Your task to perform on an android device: change notifications settings Image 0: 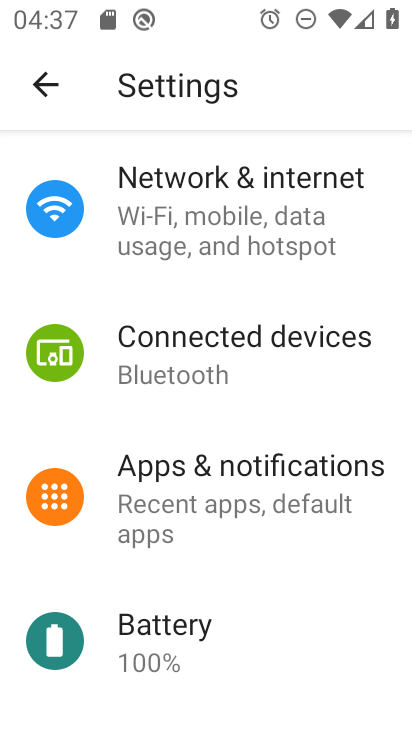
Step 0: click (220, 488)
Your task to perform on an android device: change notifications settings Image 1: 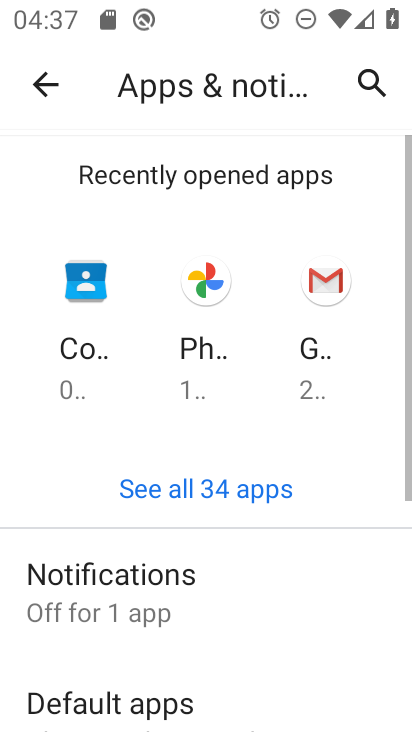
Step 1: click (162, 638)
Your task to perform on an android device: change notifications settings Image 2: 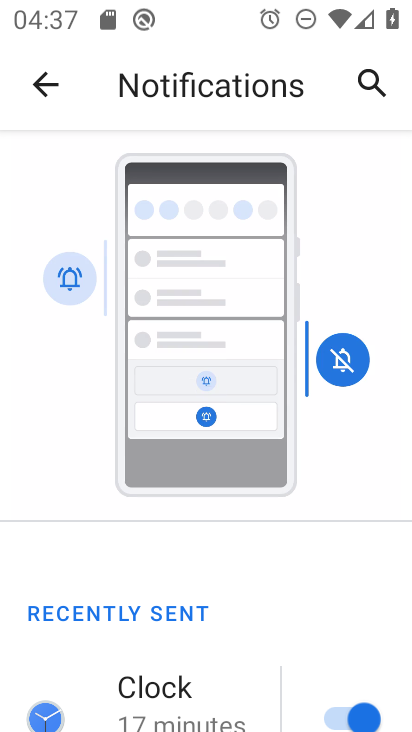
Step 2: drag from (302, 713) to (281, 493)
Your task to perform on an android device: change notifications settings Image 3: 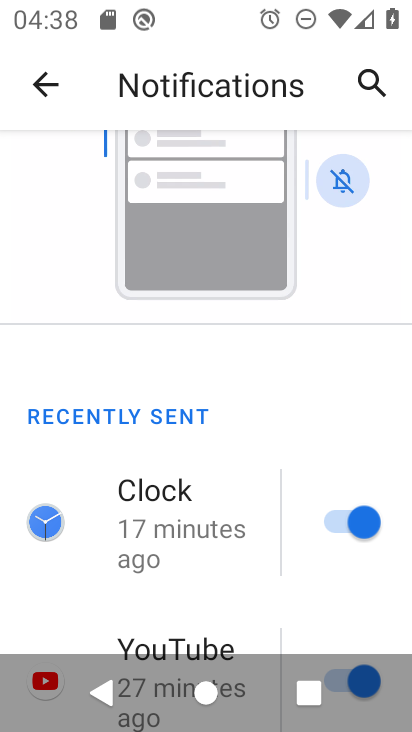
Step 3: drag from (241, 565) to (282, 98)
Your task to perform on an android device: change notifications settings Image 4: 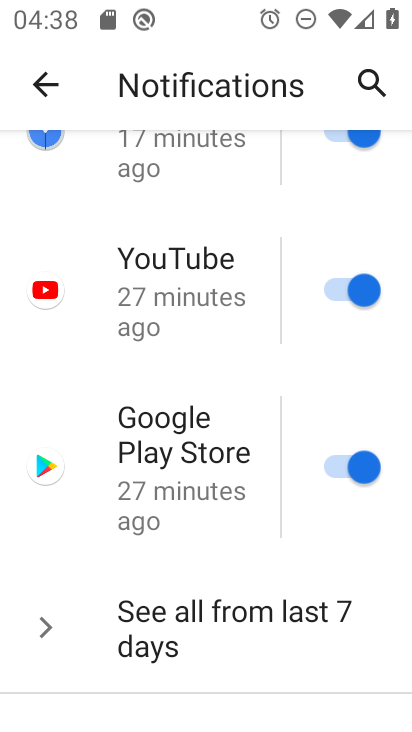
Step 4: click (245, 631)
Your task to perform on an android device: change notifications settings Image 5: 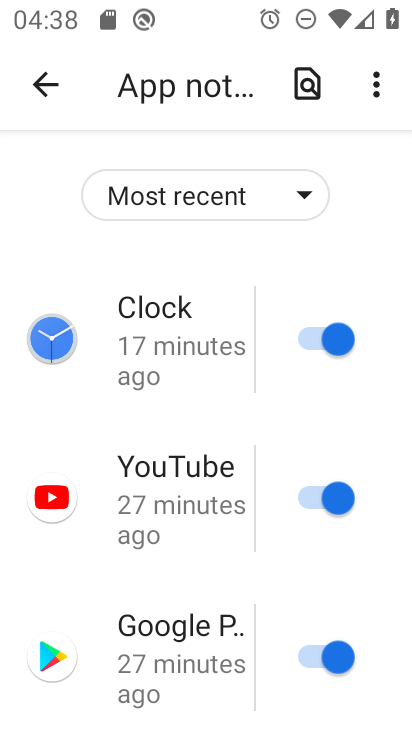
Step 5: click (339, 333)
Your task to perform on an android device: change notifications settings Image 6: 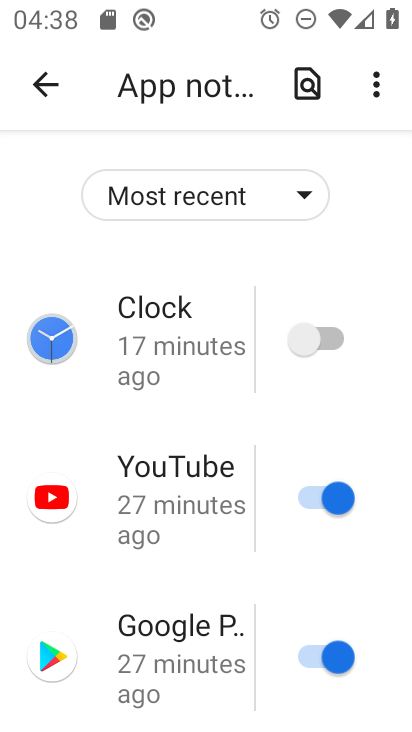
Step 6: click (317, 486)
Your task to perform on an android device: change notifications settings Image 7: 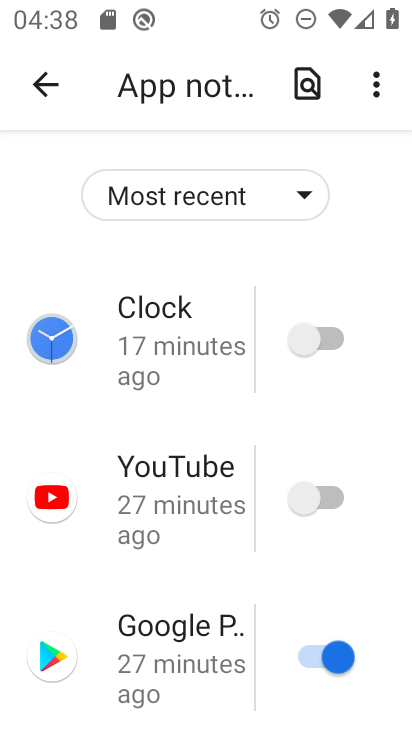
Step 7: click (301, 643)
Your task to perform on an android device: change notifications settings Image 8: 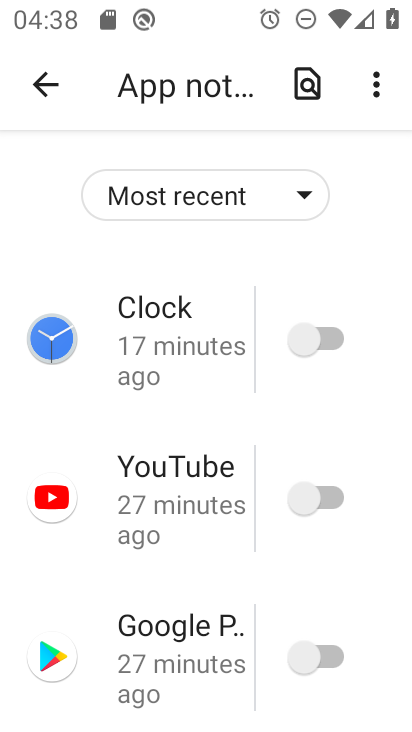
Step 8: drag from (102, 643) to (98, 478)
Your task to perform on an android device: change notifications settings Image 9: 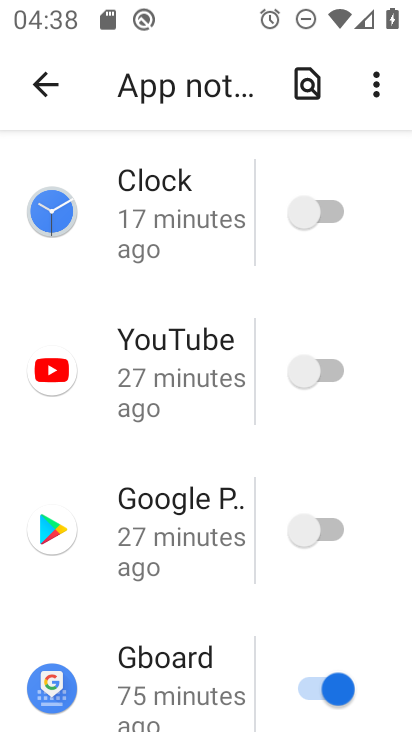
Step 9: drag from (144, 592) to (146, 117)
Your task to perform on an android device: change notifications settings Image 10: 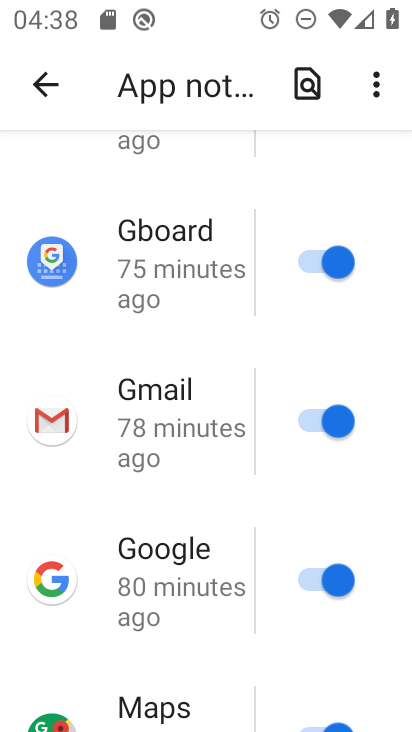
Step 10: click (314, 276)
Your task to perform on an android device: change notifications settings Image 11: 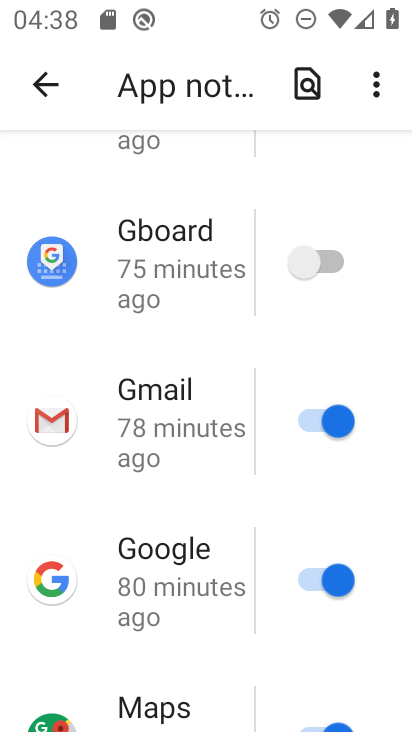
Step 11: click (308, 440)
Your task to perform on an android device: change notifications settings Image 12: 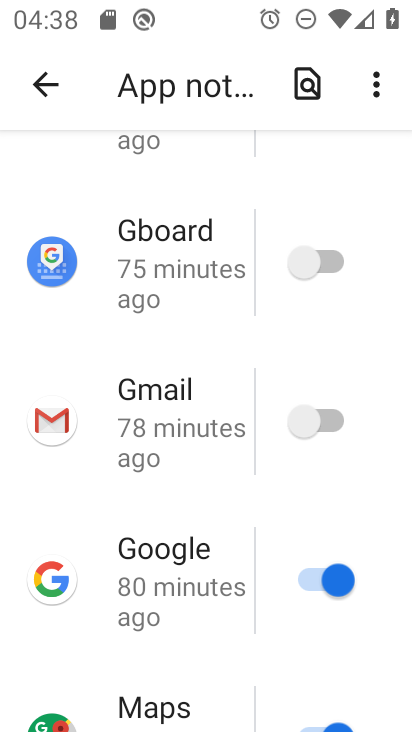
Step 12: click (307, 561)
Your task to perform on an android device: change notifications settings Image 13: 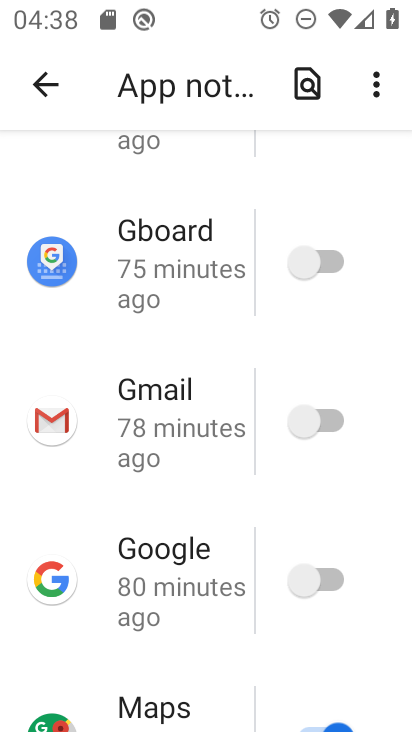
Step 13: click (312, 723)
Your task to perform on an android device: change notifications settings Image 14: 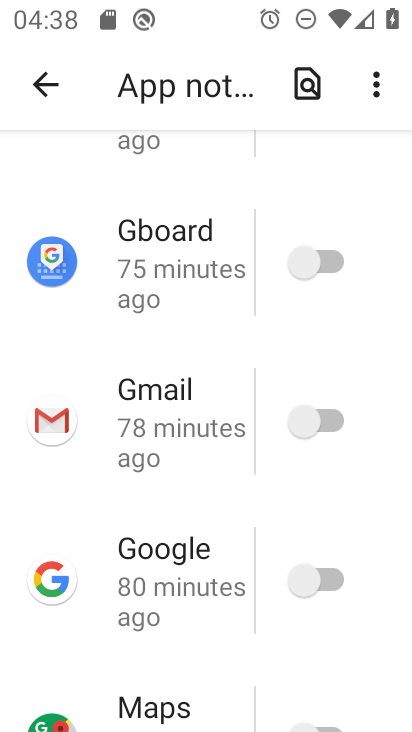
Step 14: drag from (104, 609) to (113, 198)
Your task to perform on an android device: change notifications settings Image 15: 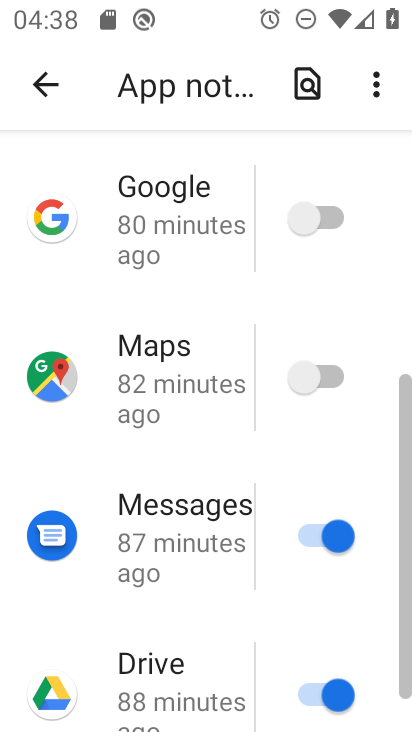
Step 15: click (295, 532)
Your task to perform on an android device: change notifications settings Image 16: 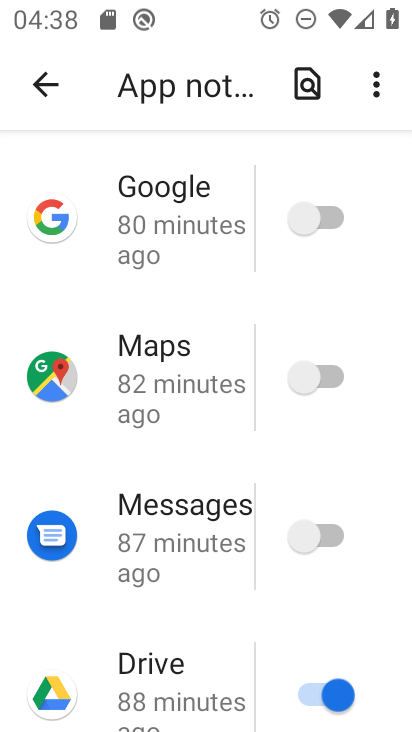
Step 16: click (303, 695)
Your task to perform on an android device: change notifications settings Image 17: 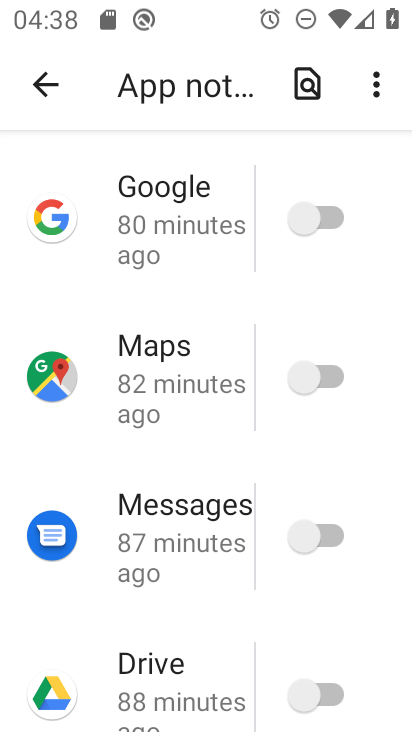
Step 17: drag from (187, 661) to (166, 140)
Your task to perform on an android device: change notifications settings Image 18: 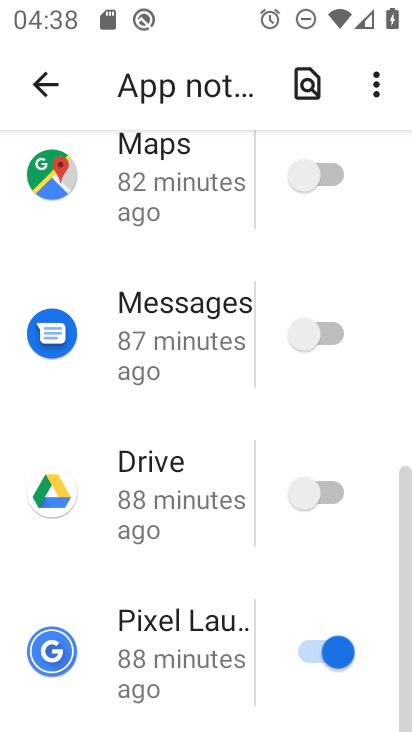
Step 18: click (311, 658)
Your task to perform on an android device: change notifications settings Image 19: 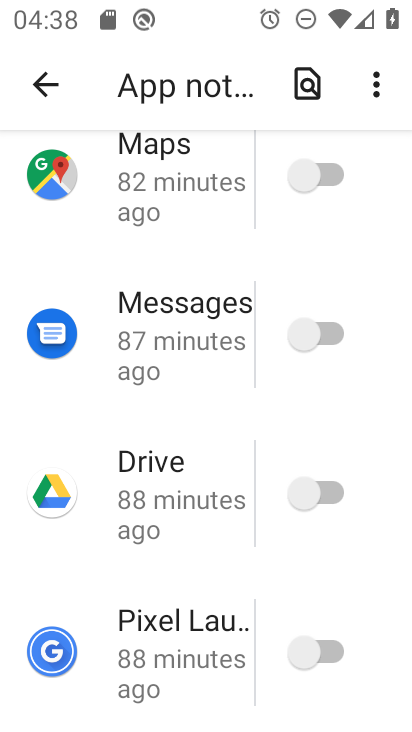
Step 19: click (25, 82)
Your task to perform on an android device: change notifications settings Image 20: 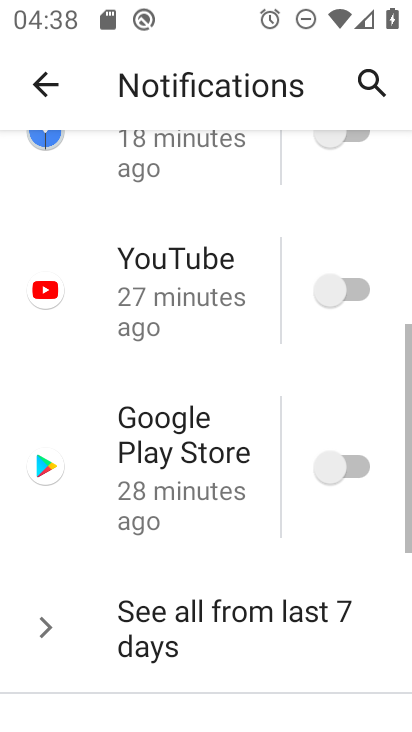
Step 20: drag from (196, 641) to (236, 111)
Your task to perform on an android device: change notifications settings Image 21: 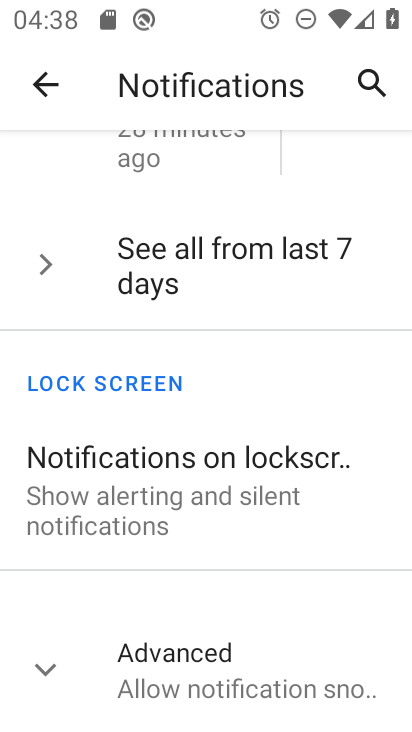
Step 21: click (141, 482)
Your task to perform on an android device: change notifications settings Image 22: 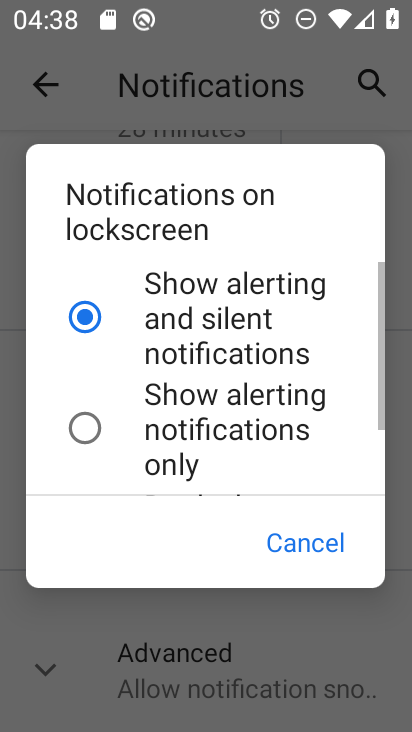
Step 22: click (125, 367)
Your task to perform on an android device: change notifications settings Image 23: 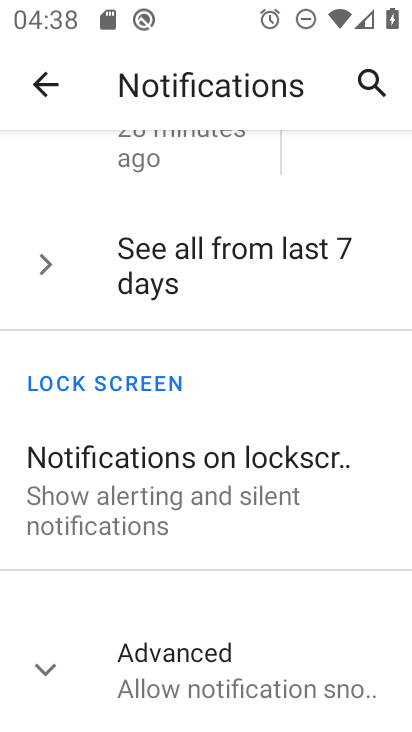
Step 23: click (107, 459)
Your task to perform on an android device: change notifications settings Image 24: 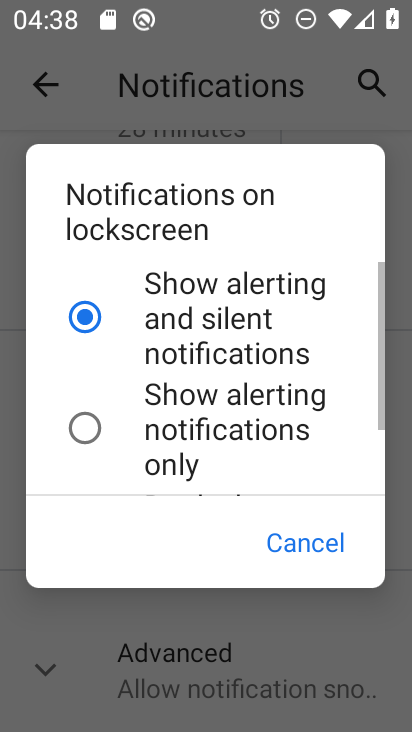
Step 24: click (119, 430)
Your task to perform on an android device: change notifications settings Image 25: 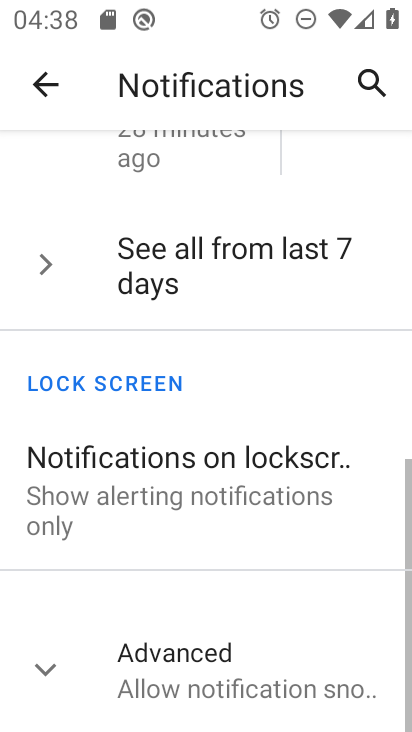
Step 25: click (169, 695)
Your task to perform on an android device: change notifications settings Image 26: 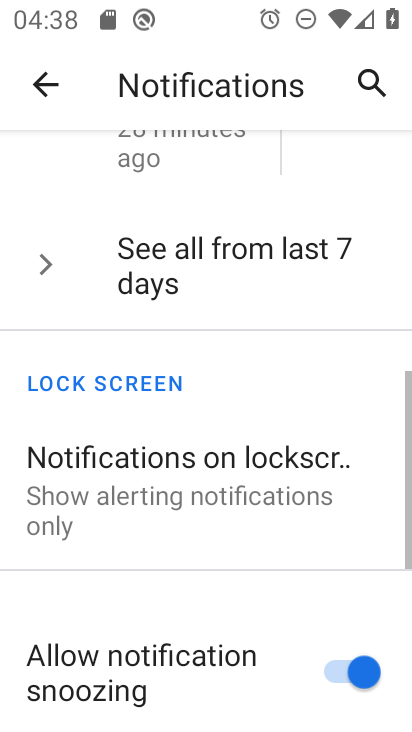
Step 26: drag from (151, 671) to (153, 180)
Your task to perform on an android device: change notifications settings Image 27: 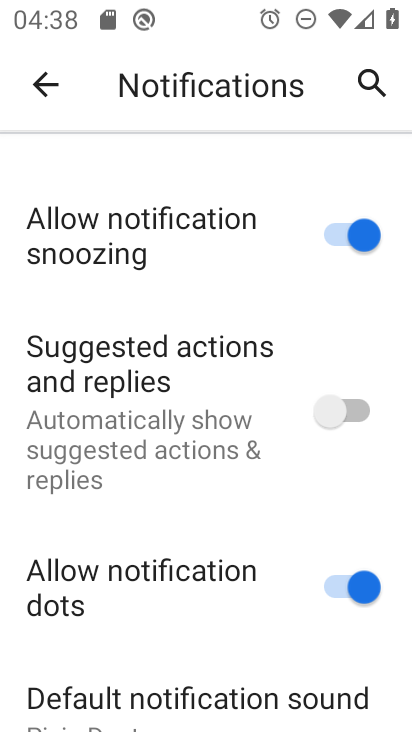
Step 27: click (325, 233)
Your task to perform on an android device: change notifications settings Image 28: 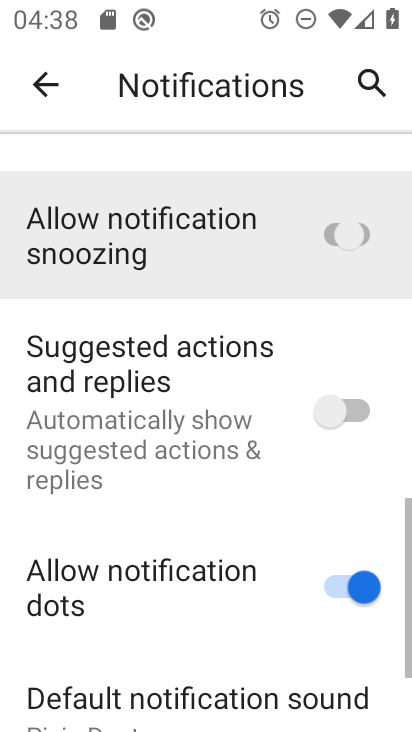
Step 28: click (313, 417)
Your task to perform on an android device: change notifications settings Image 29: 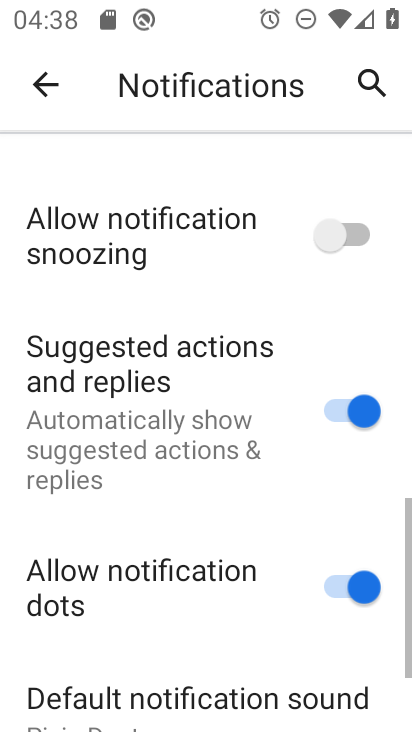
Step 29: click (354, 604)
Your task to perform on an android device: change notifications settings Image 30: 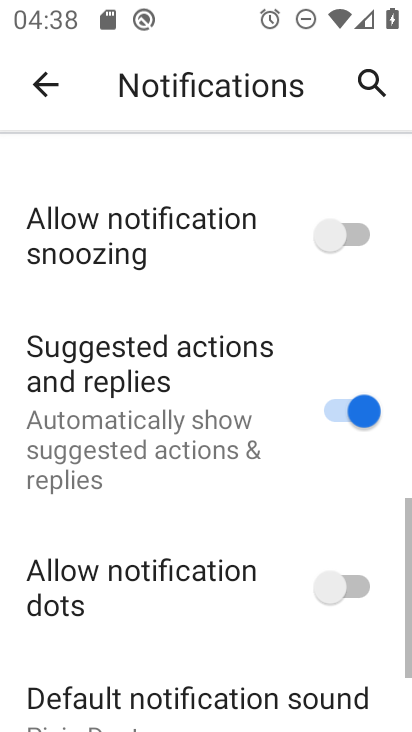
Step 30: task complete